Your task to perform on an android device: What's the weather going to be tomorrow? Image 0: 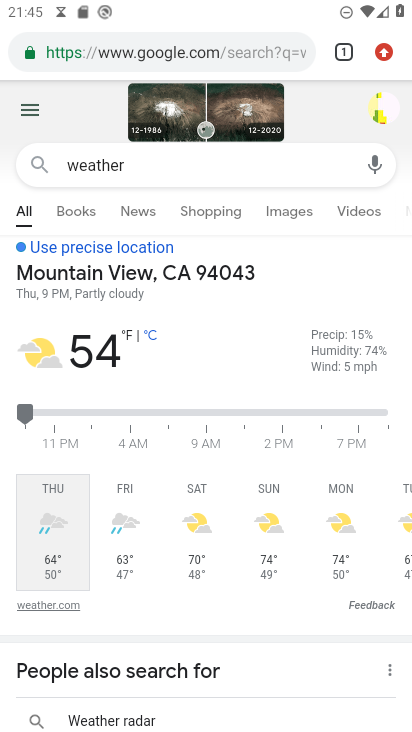
Step 0: click (160, 45)
Your task to perform on an android device: What's the weather going to be tomorrow? Image 1: 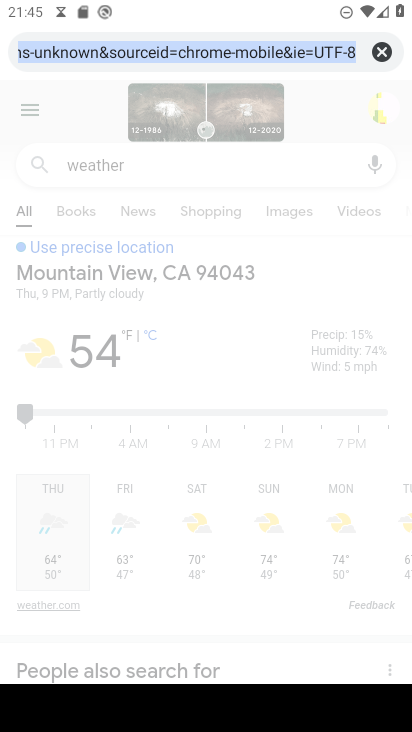
Step 1: click (384, 52)
Your task to perform on an android device: What's the weather going to be tomorrow? Image 2: 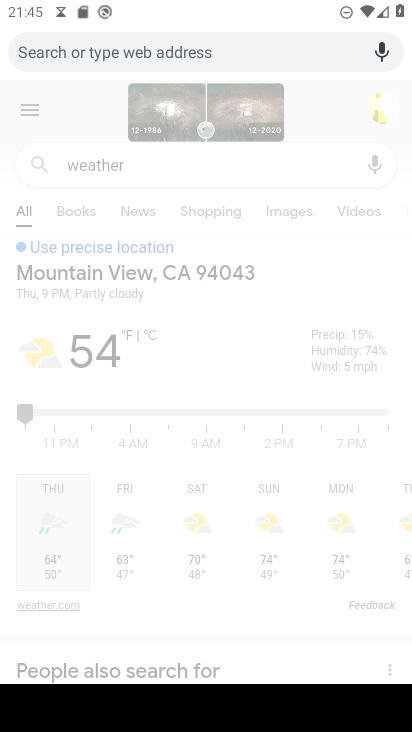
Step 2: click (130, 47)
Your task to perform on an android device: What's the weather going to be tomorrow? Image 3: 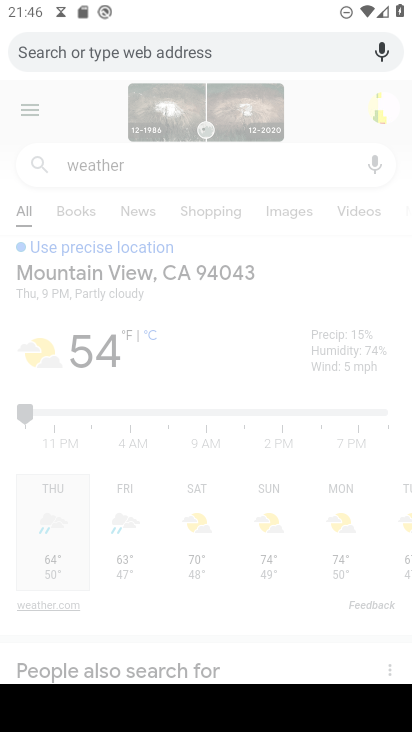
Step 3: type "weather tomorrow"
Your task to perform on an android device: What's the weather going to be tomorrow? Image 4: 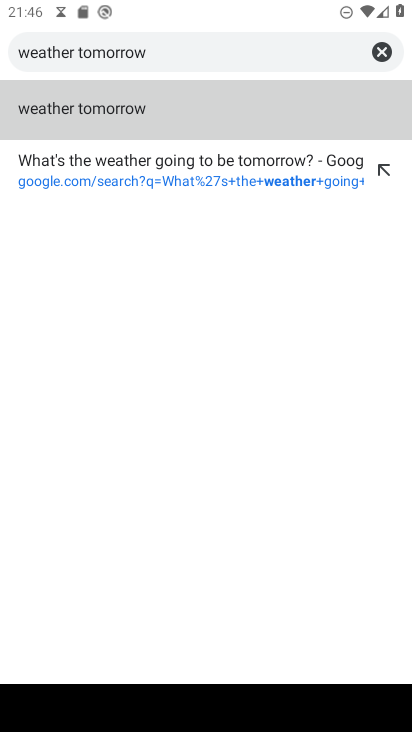
Step 4: click (96, 98)
Your task to perform on an android device: What's the weather going to be tomorrow? Image 5: 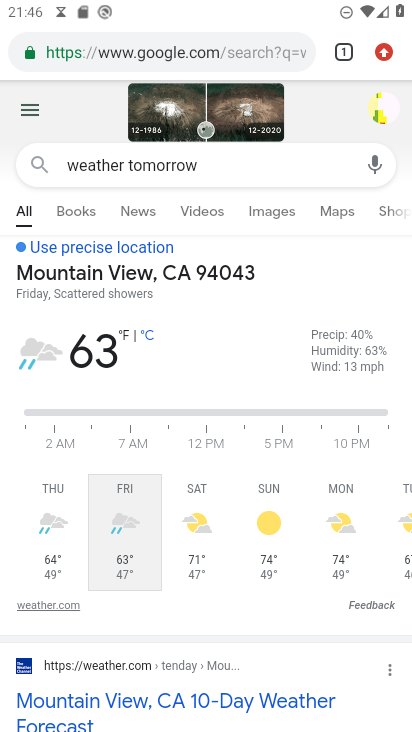
Step 5: task complete